Your task to perform on an android device: remove spam from my inbox in the gmail app Image 0: 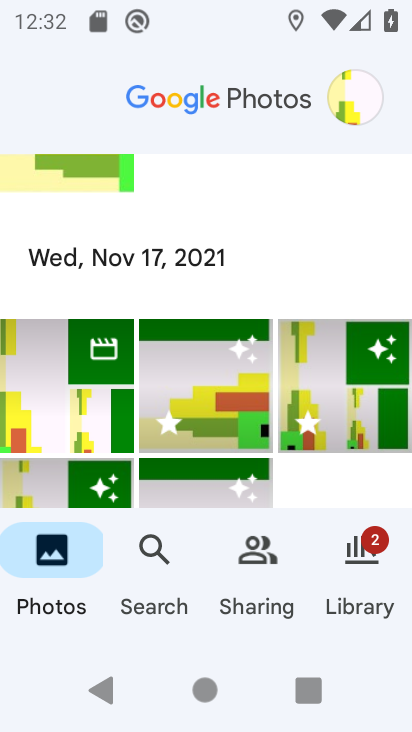
Step 0: press home button
Your task to perform on an android device: remove spam from my inbox in the gmail app Image 1: 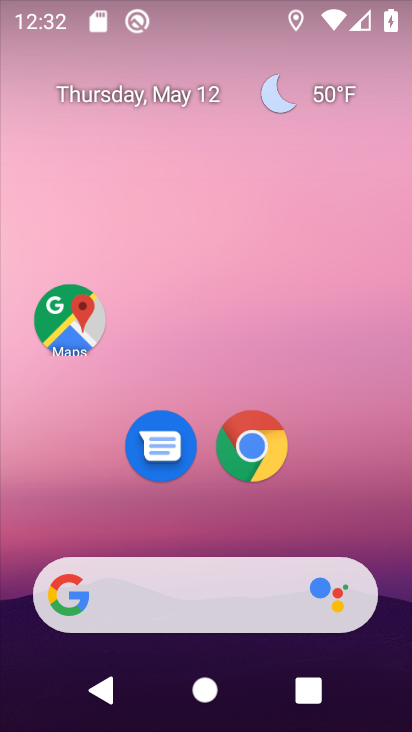
Step 1: drag from (358, 507) to (340, 0)
Your task to perform on an android device: remove spam from my inbox in the gmail app Image 2: 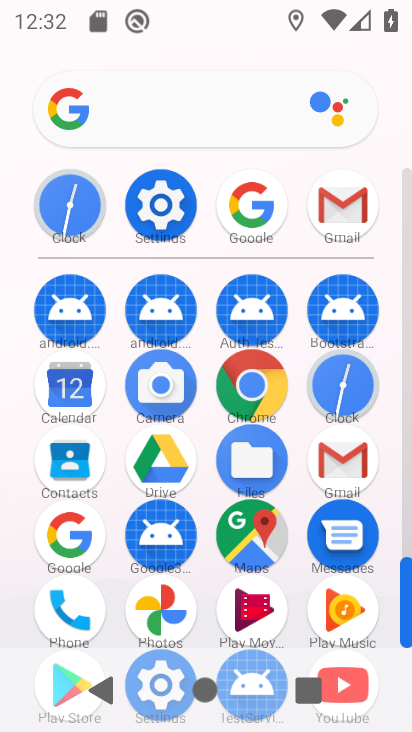
Step 2: click (314, 443)
Your task to perform on an android device: remove spam from my inbox in the gmail app Image 3: 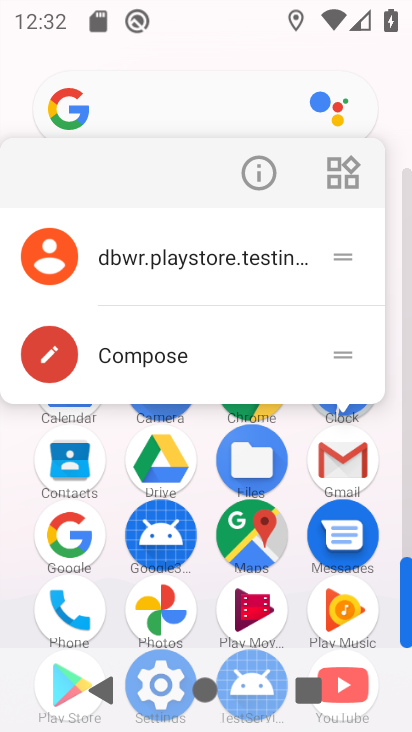
Step 3: click (327, 455)
Your task to perform on an android device: remove spam from my inbox in the gmail app Image 4: 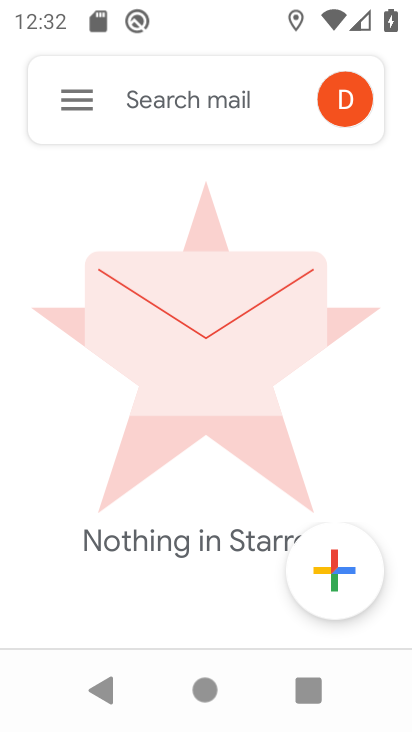
Step 4: click (91, 98)
Your task to perform on an android device: remove spam from my inbox in the gmail app Image 5: 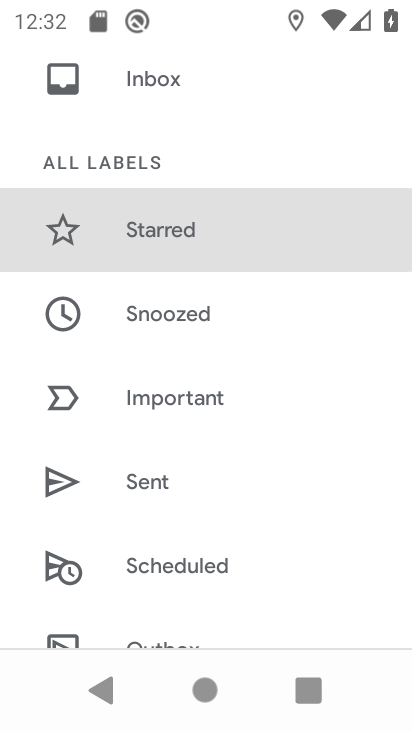
Step 5: drag from (186, 540) to (164, 77)
Your task to perform on an android device: remove spam from my inbox in the gmail app Image 6: 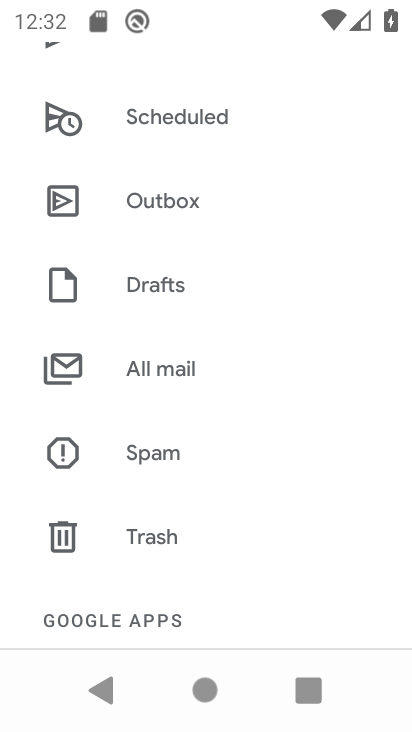
Step 6: drag from (148, 550) to (148, 79)
Your task to perform on an android device: remove spam from my inbox in the gmail app Image 7: 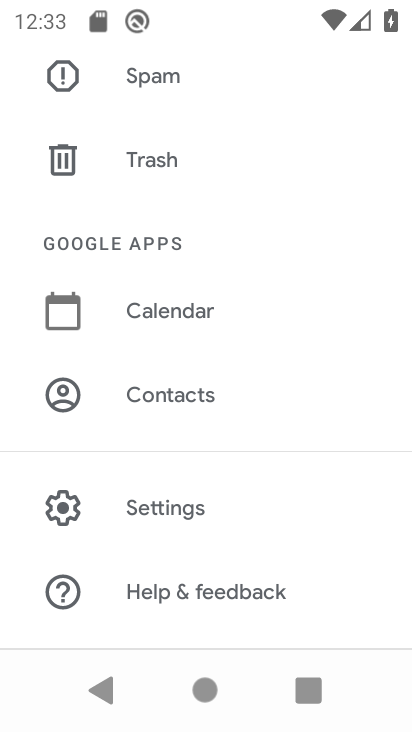
Step 7: click (163, 80)
Your task to perform on an android device: remove spam from my inbox in the gmail app Image 8: 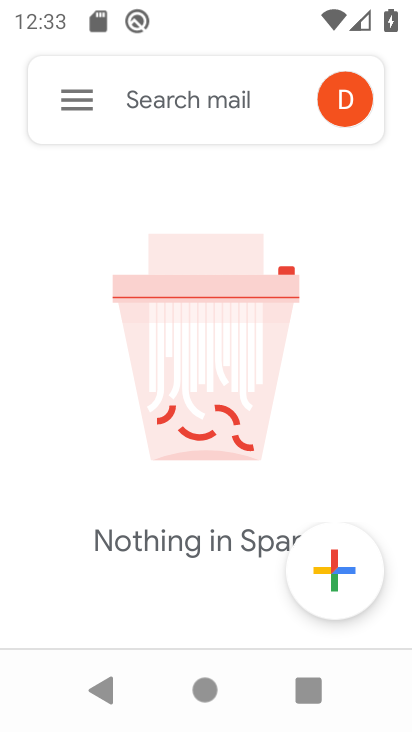
Step 8: task complete